Your task to perform on an android device: turn on data saver in the chrome app Image 0: 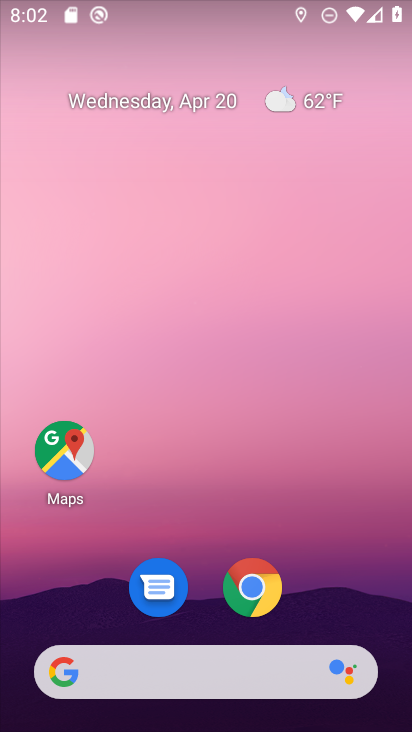
Step 0: click (259, 583)
Your task to perform on an android device: turn on data saver in the chrome app Image 1: 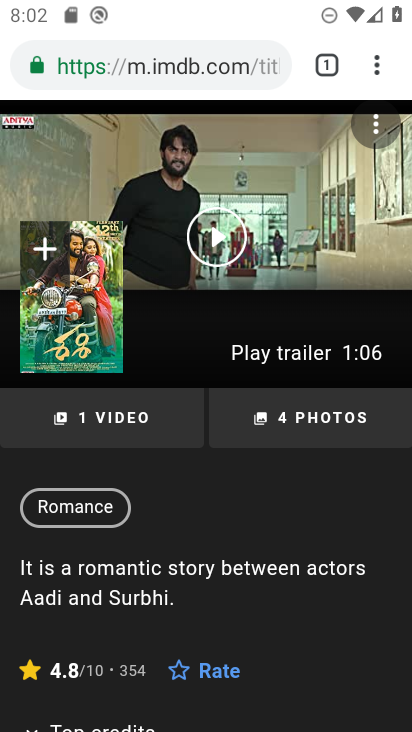
Step 1: click (379, 78)
Your task to perform on an android device: turn on data saver in the chrome app Image 2: 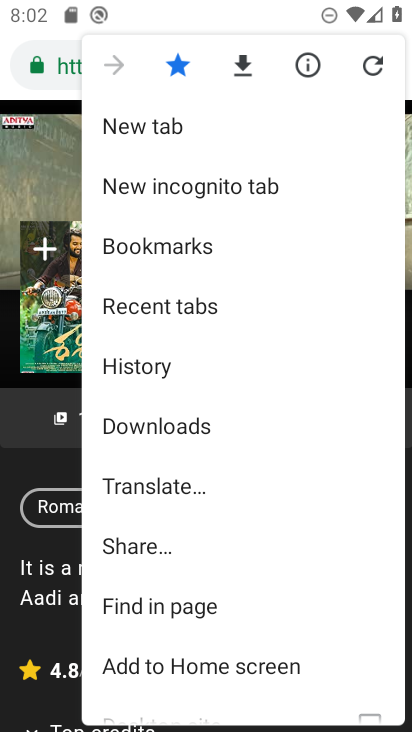
Step 2: drag from (205, 627) to (208, 246)
Your task to perform on an android device: turn on data saver in the chrome app Image 3: 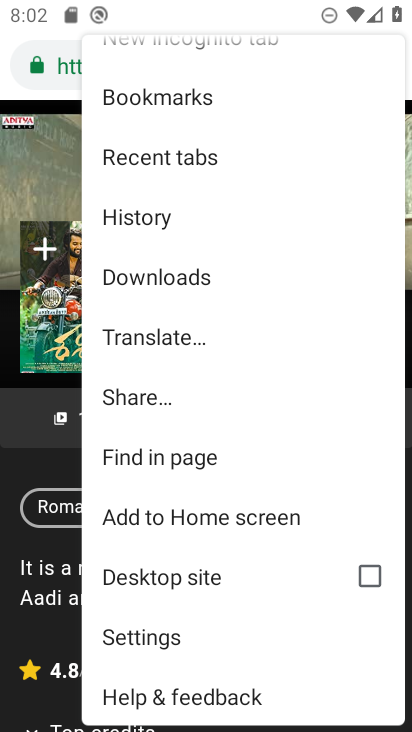
Step 3: click (185, 638)
Your task to perform on an android device: turn on data saver in the chrome app Image 4: 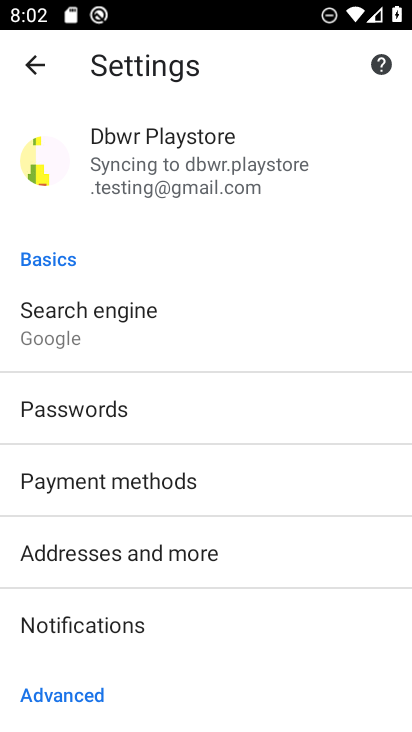
Step 4: drag from (161, 675) to (145, 157)
Your task to perform on an android device: turn on data saver in the chrome app Image 5: 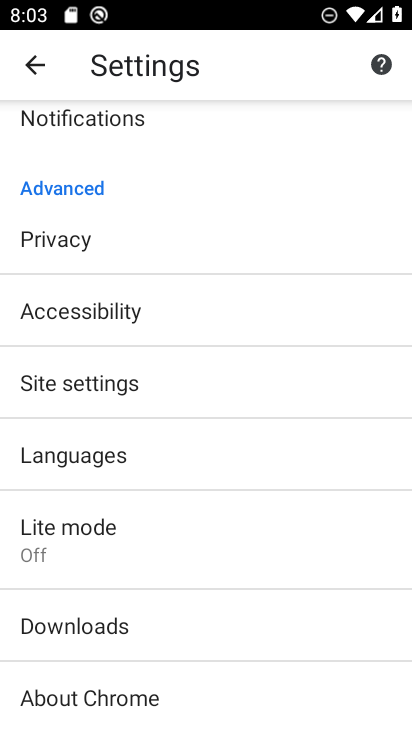
Step 5: click (81, 519)
Your task to perform on an android device: turn on data saver in the chrome app Image 6: 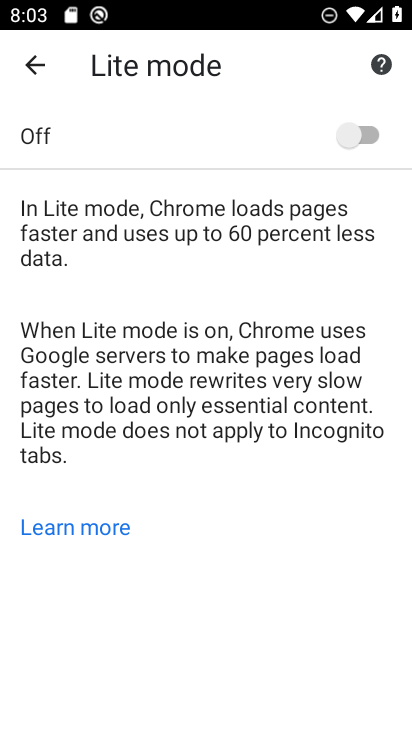
Step 6: click (333, 126)
Your task to perform on an android device: turn on data saver in the chrome app Image 7: 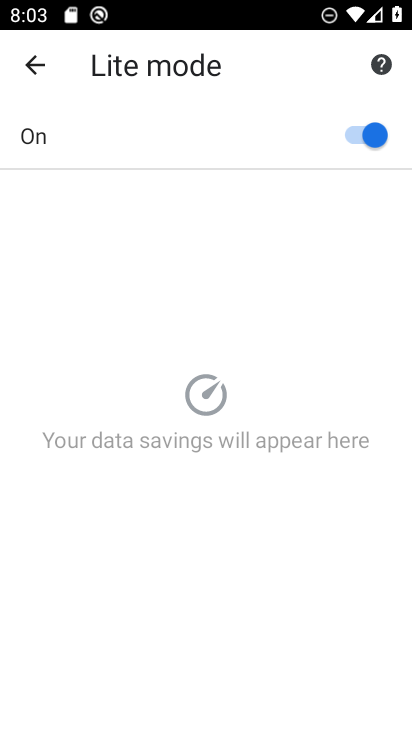
Step 7: task complete